Your task to perform on an android device: Is it going to rain this weekend? Image 0: 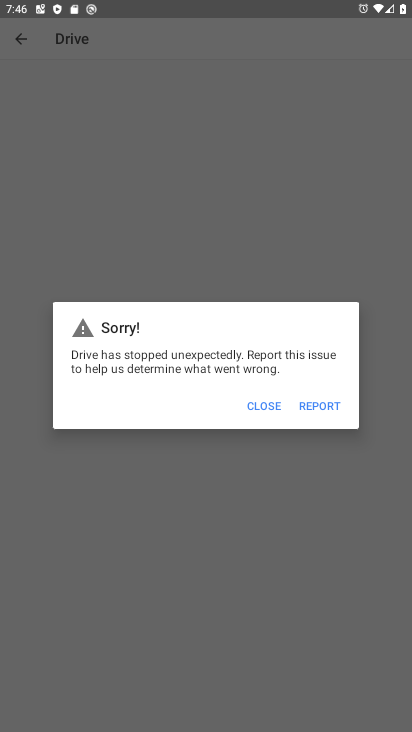
Step 0: press home button
Your task to perform on an android device: Is it going to rain this weekend? Image 1: 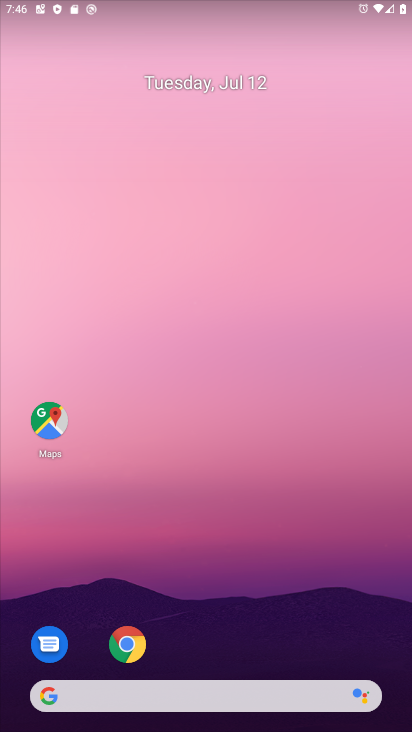
Step 1: drag from (181, 668) to (271, 342)
Your task to perform on an android device: Is it going to rain this weekend? Image 2: 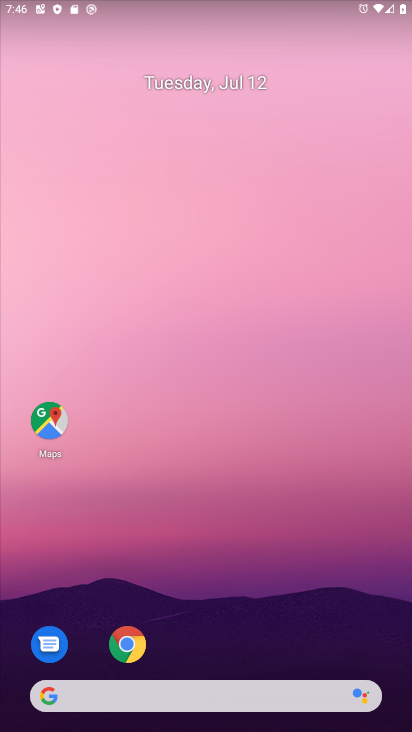
Step 2: drag from (134, 675) to (227, 338)
Your task to perform on an android device: Is it going to rain this weekend? Image 3: 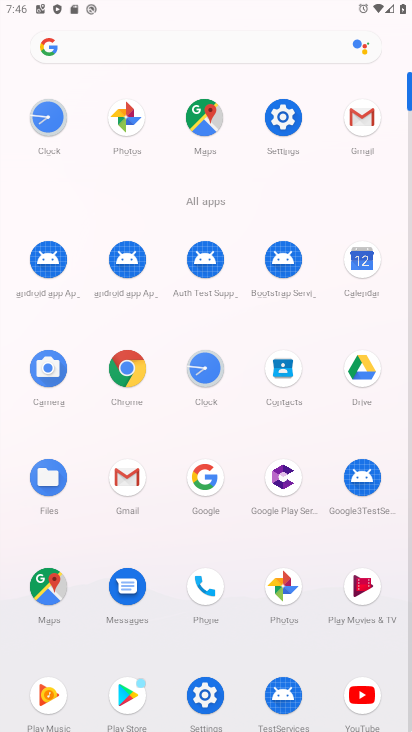
Step 3: click (220, 474)
Your task to perform on an android device: Is it going to rain this weekend? Image 4: 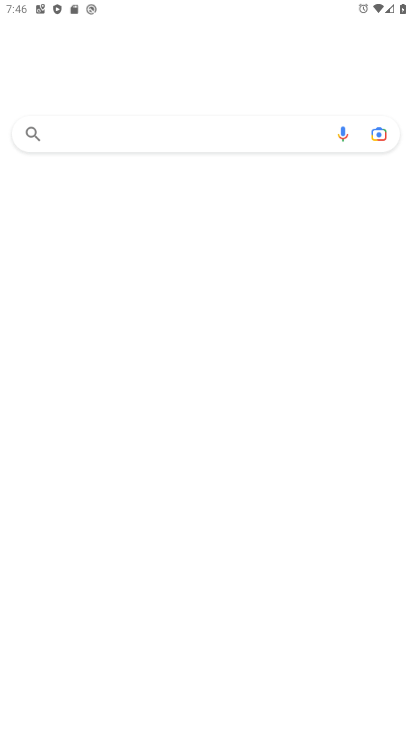
Step 4: click (212, 485)
Your task to perform on an android device: Is it going to rain this weekend? Image 5: 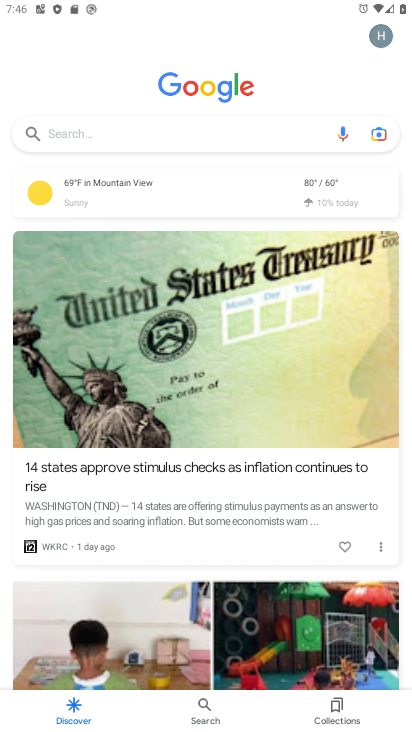
Step 5: click (133, 130)
Your task to perform on an android device: Is it going to rain this weekend? Image 6: 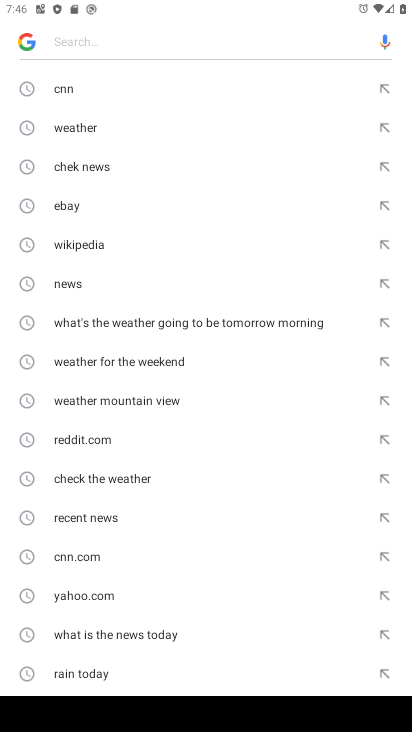
Step 6: drag from (71, 641) to (159, 323)
Your task to perform on an android device: Is it going to rain this weekend? Image 7: 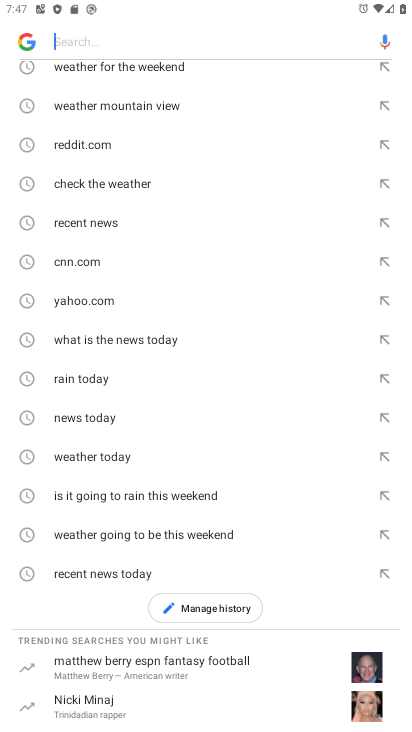
Step 7: click (88, 376)
Your task to perform on an android device: Is it going to rain this weekend? Image 8: 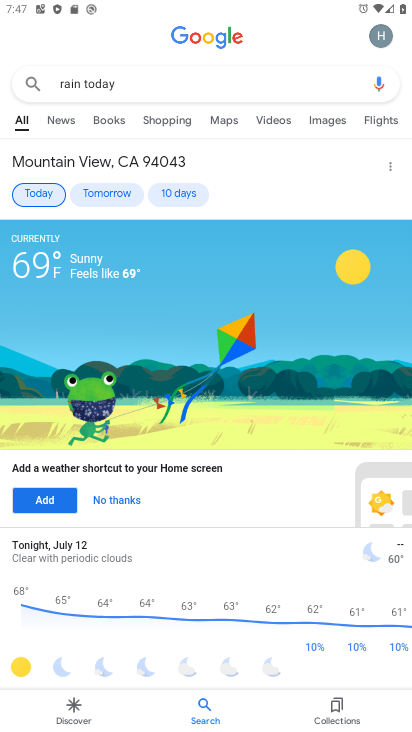
Step 8: task complete